Your task to perform on an android device: check data usage Image 0: 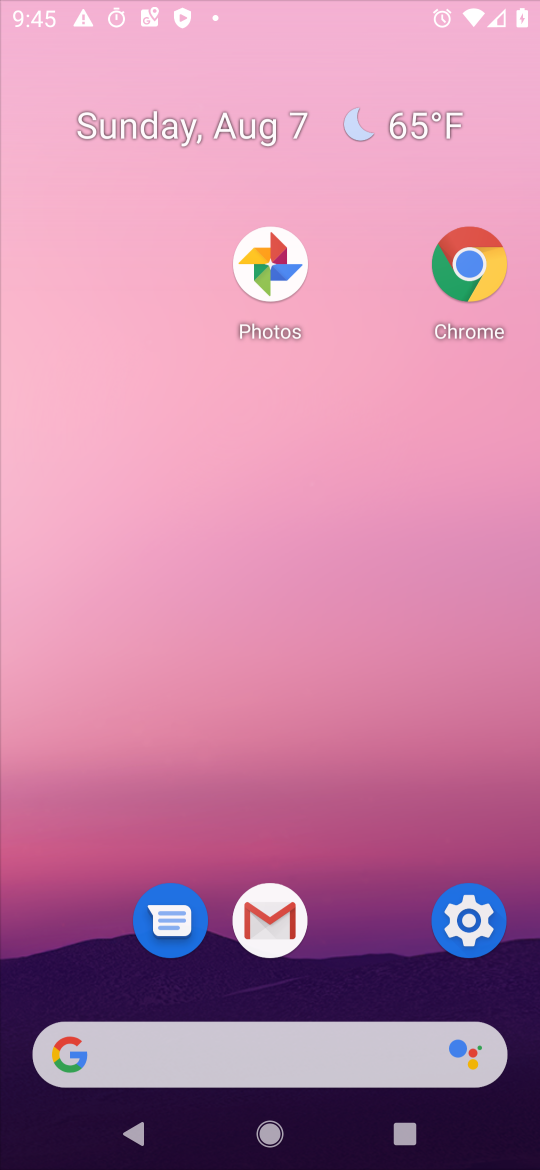
Step 0: press home button
Your task to perform on an android device: check data usage Image 1: 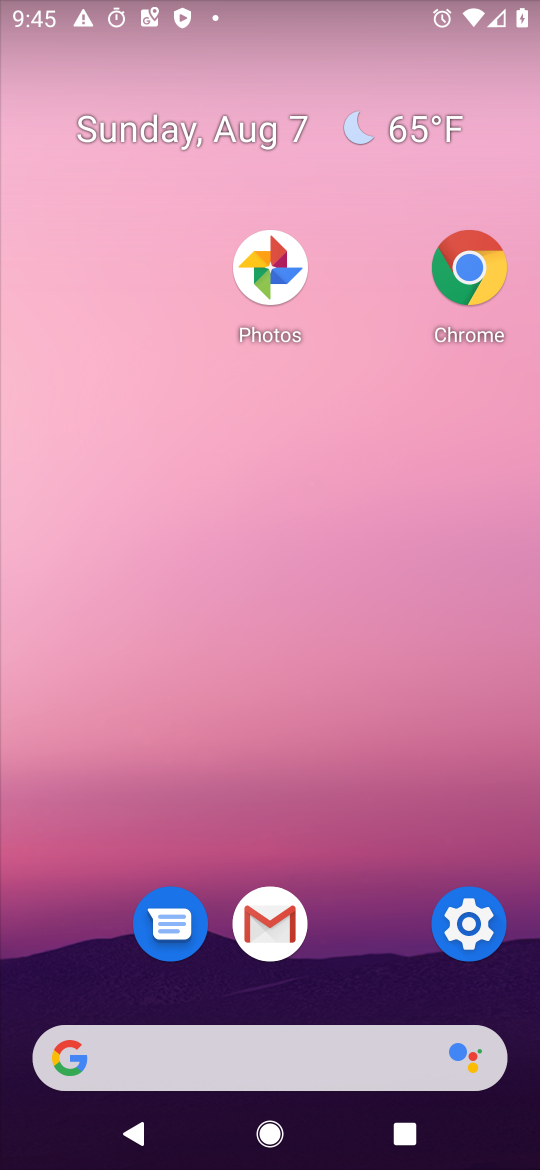
Step 1: drag from (350, 1087) to (312, 458)
Your task to perform on an android device: check data usage Image 2: 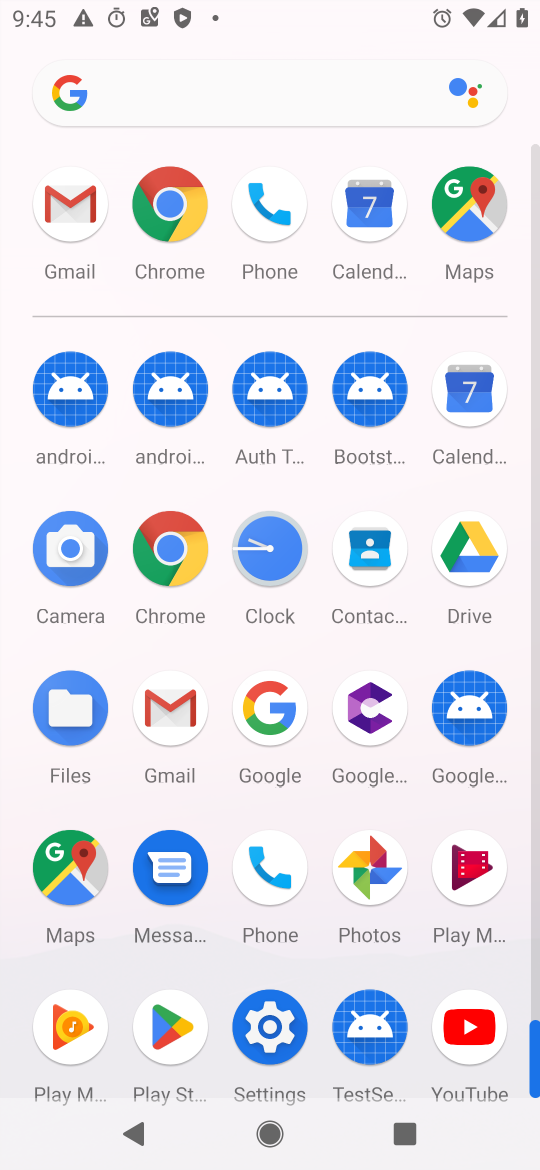
Step 2: click (269, 1015)
Your task to perform on an android device: check data usage Image 3: 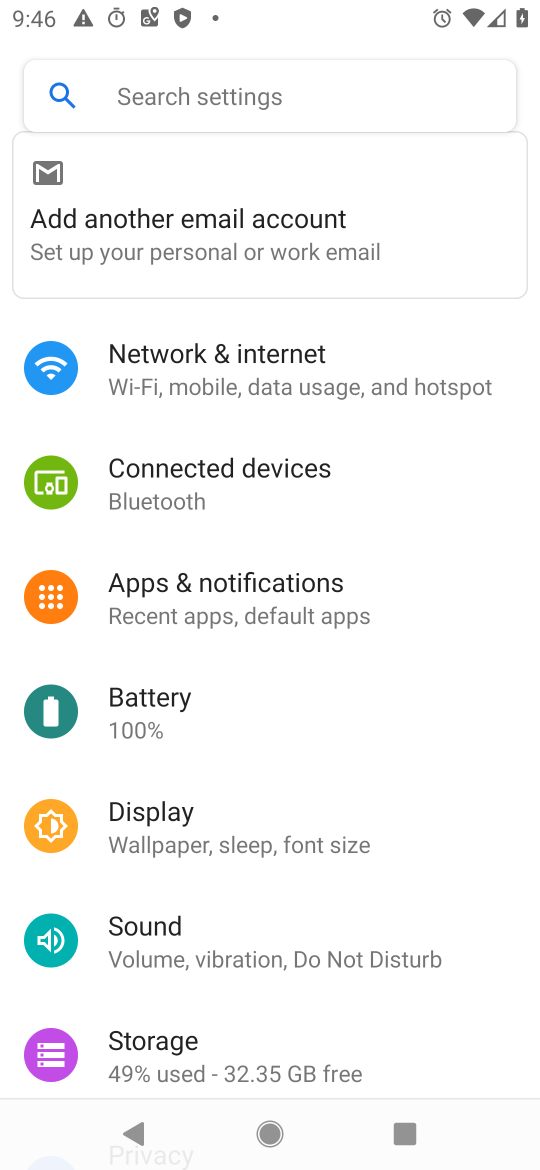
Step 3: click (186, 108)
Your task to perform on an android device: check data usage Image 4: 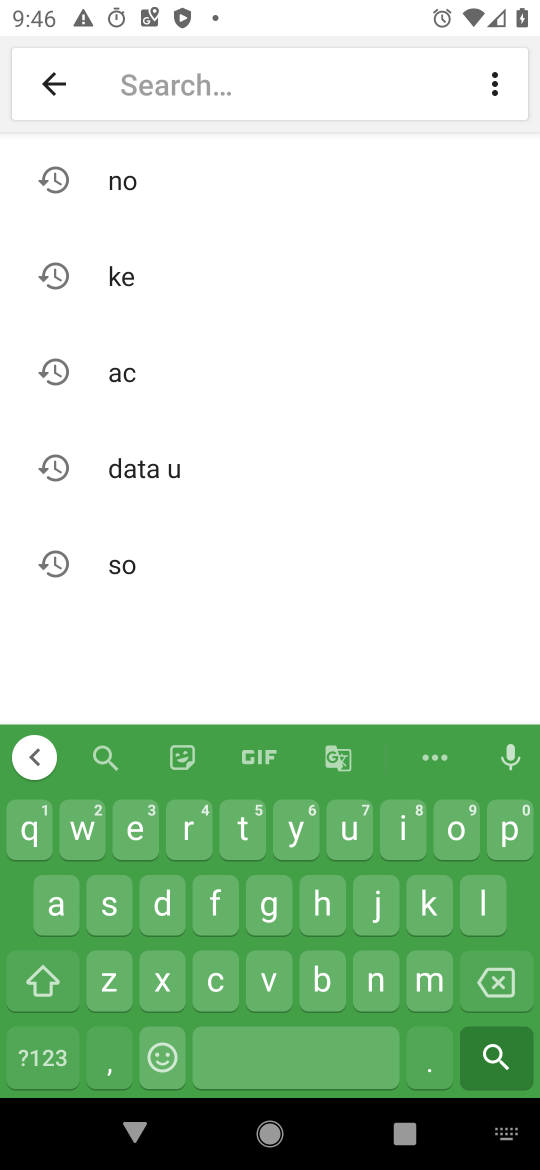
Step 4: click (159, 469)
Your task to perform on an android device: check data usage Image 5: 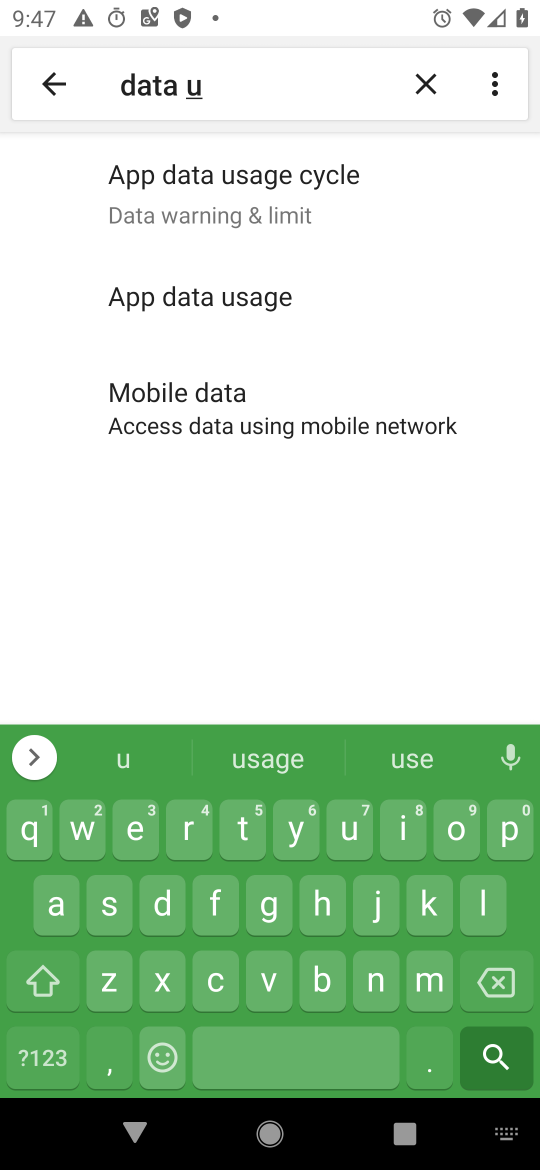
Step 5: click (208, 297)
Your task to perform on an android device: check data usage Image 6: 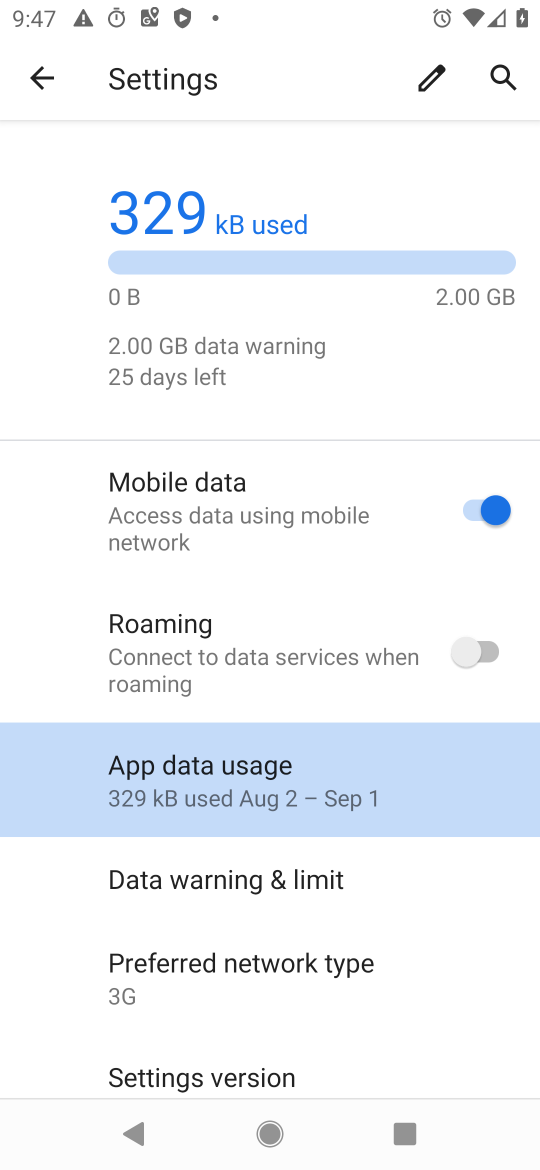
Step 6: click (251, 790)
Your task to perform on an android device: check data usage Image 7: 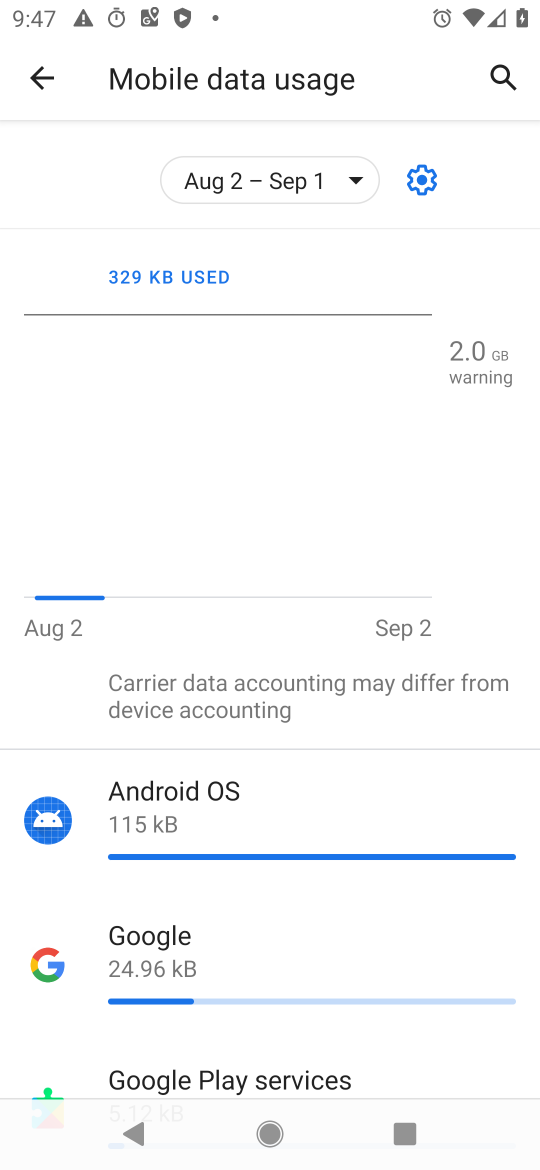
Step 7: task complete